Your task to perform on an android device: open chrome and create a bookmark for the current page Image 0: 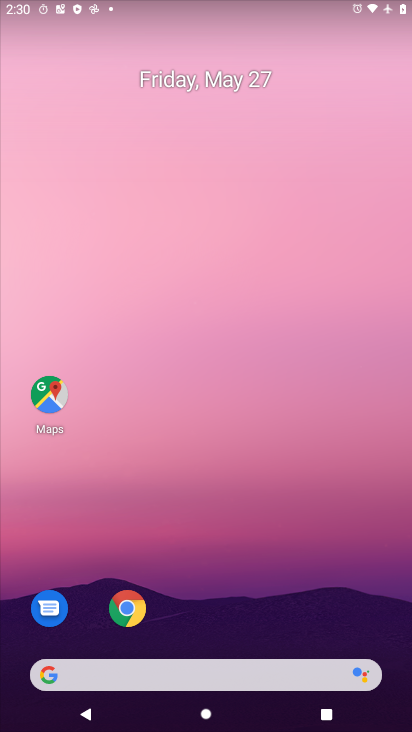
Step 0: press home button
Your task to perform on an android device: open chrome and create a bookmark for the current page Image 1: 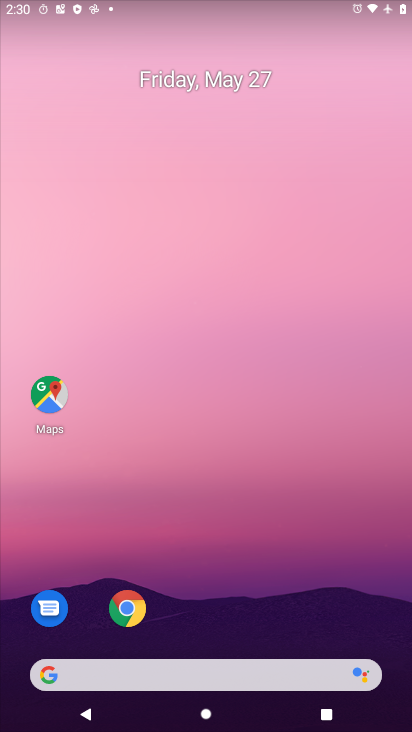
Step 1: click (128, 610)
Your task to perform on an android device: open chrome and create a bookmark for the current page Image 2: 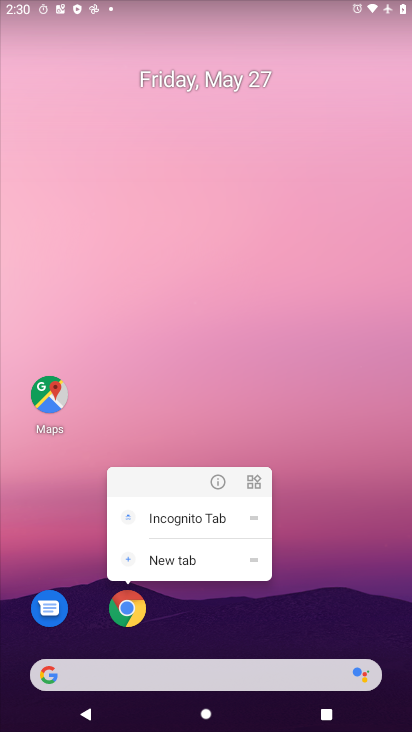
Step 2: click (129, 617)
Your task to perform on an android device: open chrome and create a bookmark for the current page Image 3: 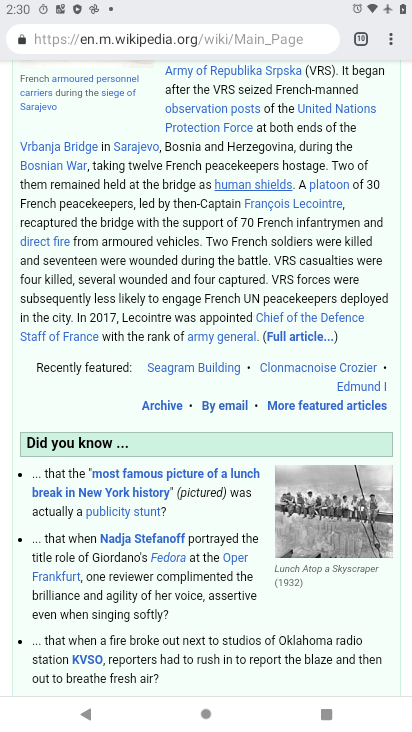
Step 3: click (389, 51)
Your task to perform on an android device: open chrome and create a bookmark for the current page Image 4: 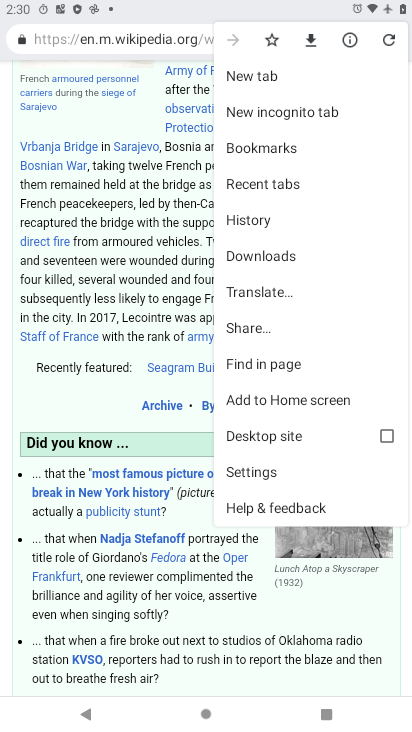
Step 4: click (274, 43)
Your task to perform on an android device: open chrome and create a bookmark for the current page Image 5: 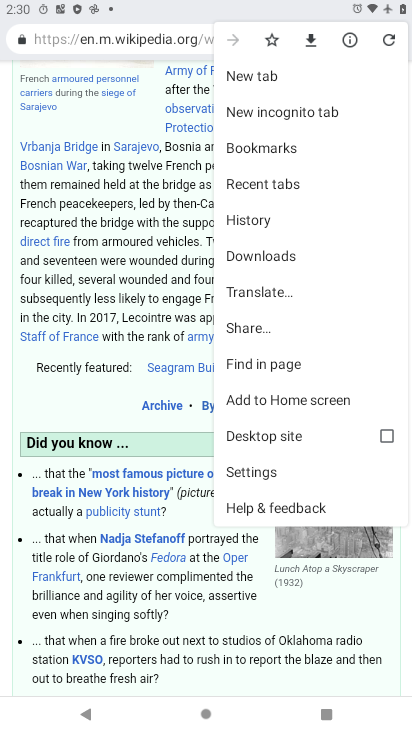
Step 5: click (270, 40)
Your task to perform on an android device: open chrome and create a bookmark for the current page Image 6: 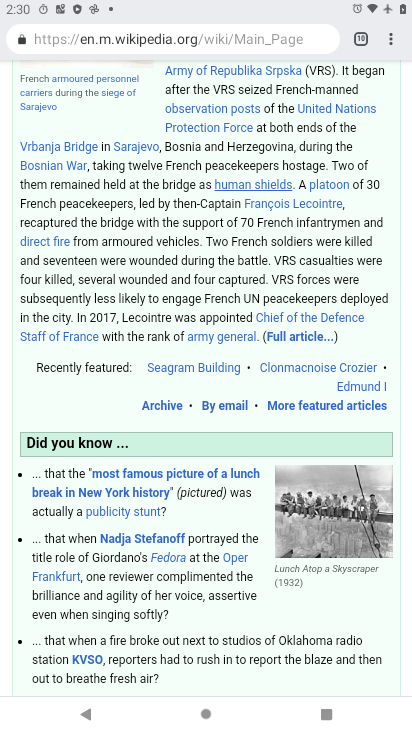
Step 6: task complete